Your task to perform on an android device: choose inbox layout in the gmail app Image 0: 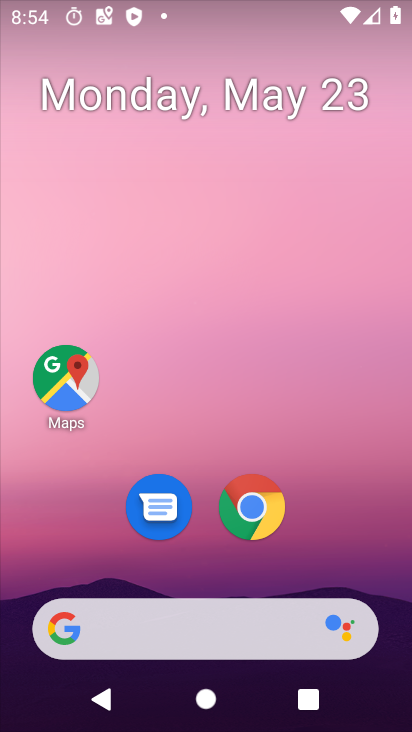
Step 0: drag from (342, 499) to (290, 2)
Your task to perform on an android device: choose inbox layout in the gmail app Image 1: 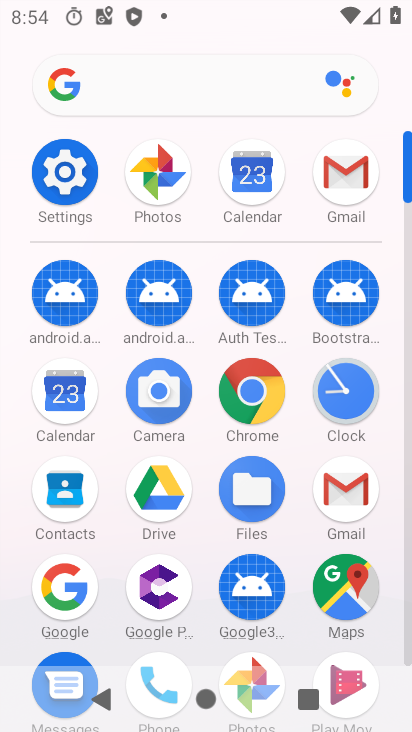
Step 1: click (346, 196)
Your task to perform on an android device: choose inbox layout in the gmail app Image 2: 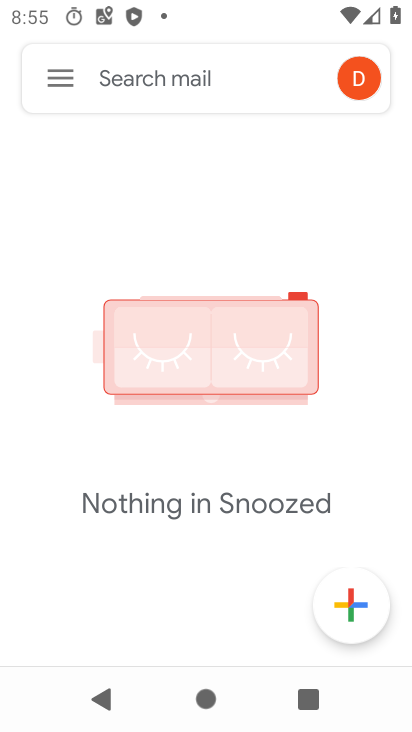
Step 2: click (66, 79)
Your task to perform on an android device: choose inbox layout in the gmail app Image 3: 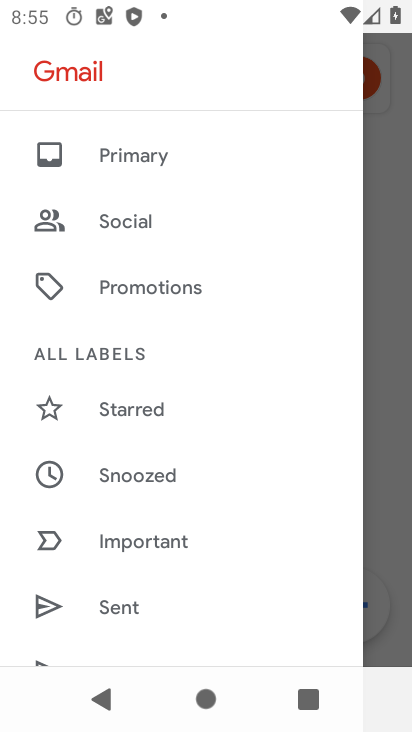
Step 3: drag from (196, 574) to (179, 89)
Your task to perform on an android device: choose inbox layout in the gmail app Image 4: 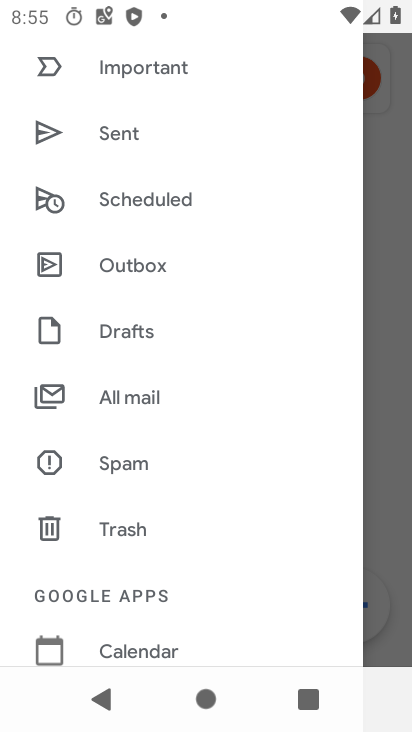
Step 4: drag from (224, 600) to (218, 175)
Your task to perform on an android device: choose inbox layout in the gmail app Image 5: 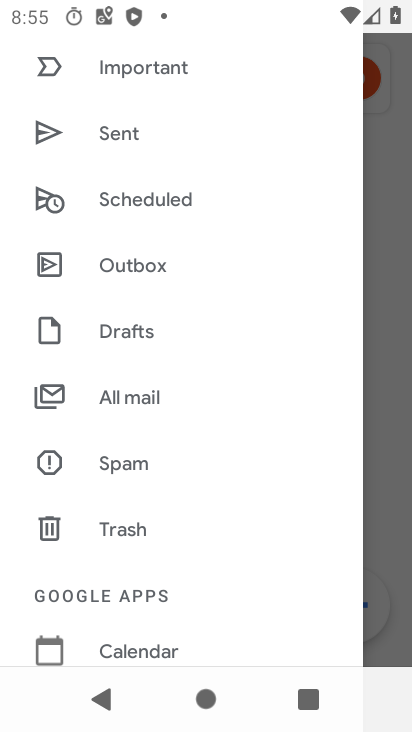
Step 5: drag from (126, 545) to (159, 95)
Your task to perform on an android device: choose inbox layout in the gmail app Image 6: 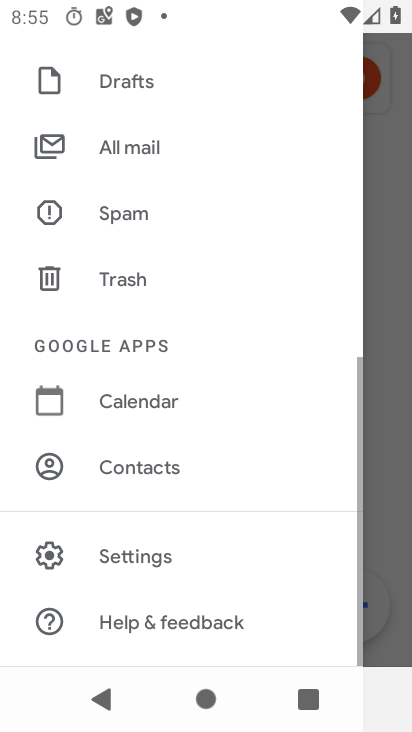
Step 6: click (128, 554)
Your task to perform on an android device: choose inbox layout in the gmail app Image 7: 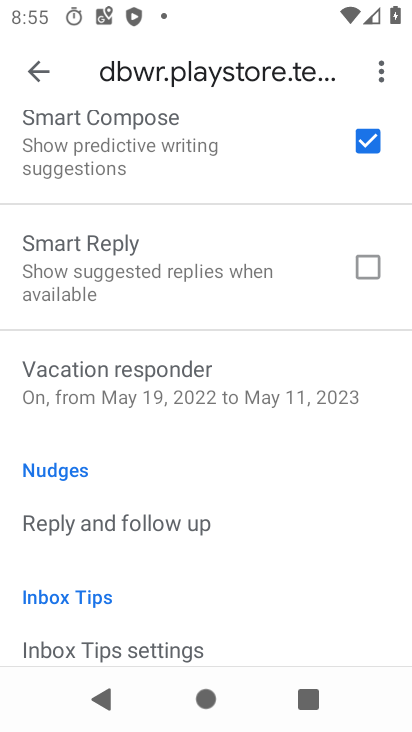
Step 7: drag from (160, 206) to (200, 600)
Your task to perform on an android device: choose inbox layout in the gmail app Image 8: 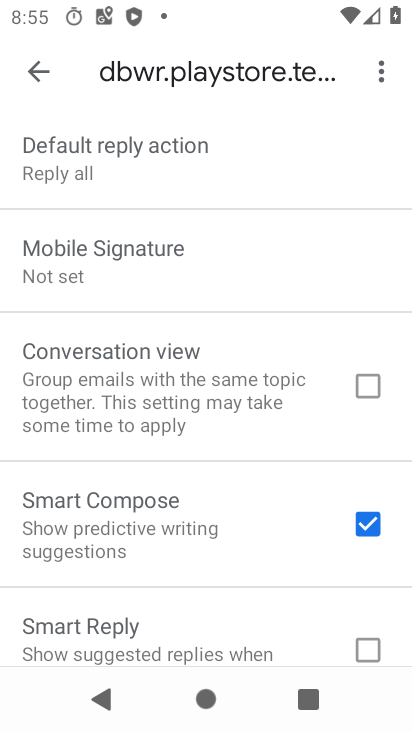
Step 8: drag from (165, 330) to (216, 604)
Your task to perform on an android device: choose inbox layout in the gmail app Image 9: 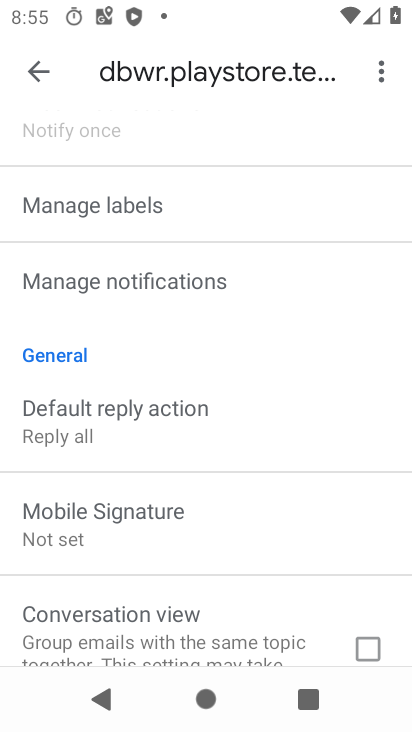
Step 9: drag from (168, 411) to (219, 637)
Your task to perform on an android device: choose inbox layout in the gmail app Image 10: 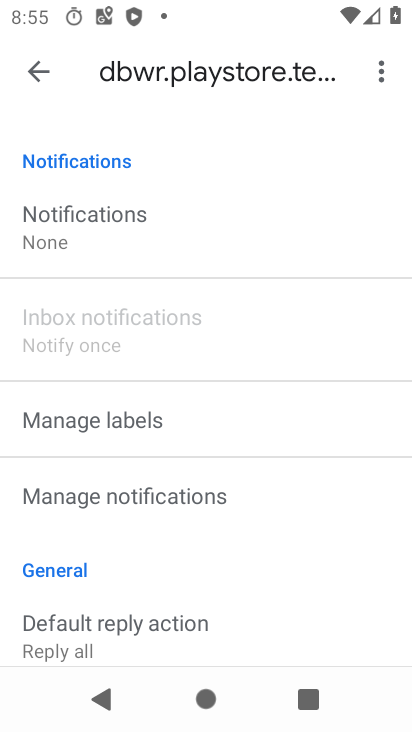
Step 10: drag from (190, 263) to (226, 630)
Your task to perform on an android device: choose inbox layout in the gmail app Image 11: 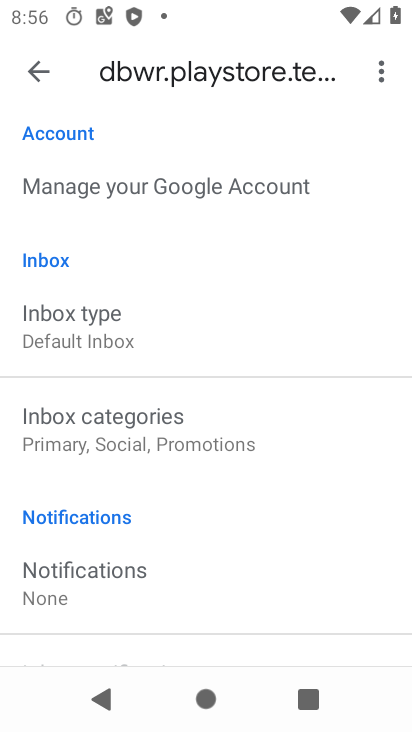
Step 11: click (87, 343)
Your task to perform on an android device: choose inbox layout in the gmail app Image 12: 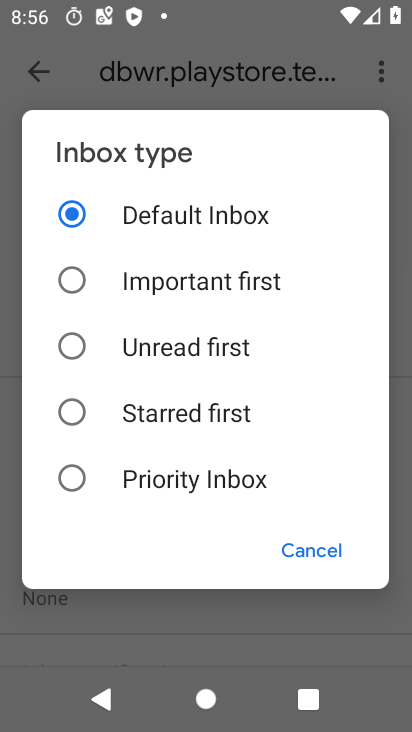
Step 12: click (88, 410)
Your task to perform on an android device: choose inbox layout in the gmail app Image 13: 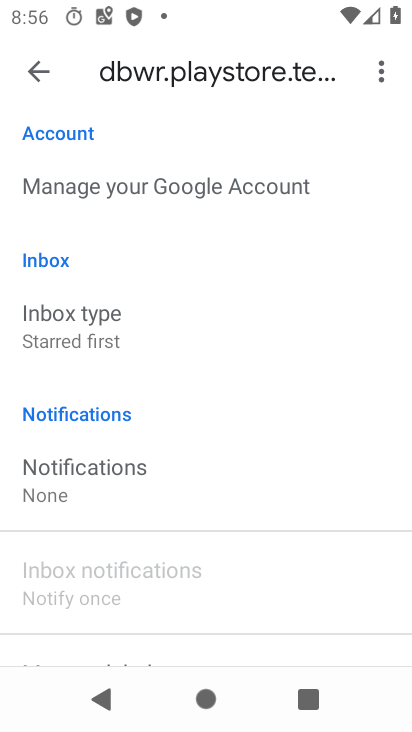
Step 13: task complete